Your task to perform on an android device: toggle show notifications on the lock screen Image 0: 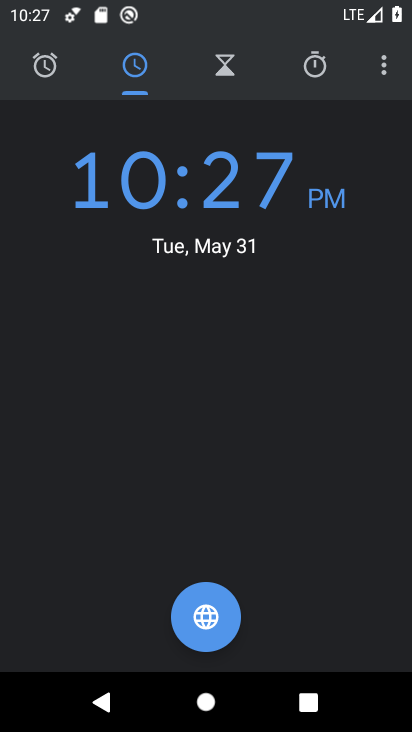
Step 0: press home button
Your task to perform on an android device: toggle show notifications on the lock screen Image 1: 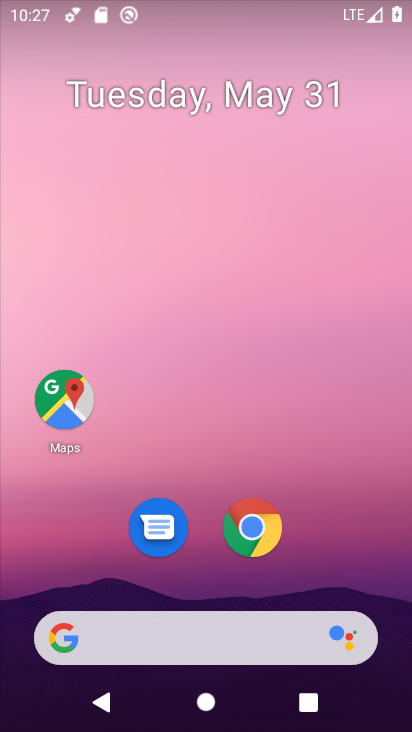
Step 1: drag from (365, 613) to (330, 0)
Your task to perform on an android device: toggle show notifications on the lock screen Image 2: 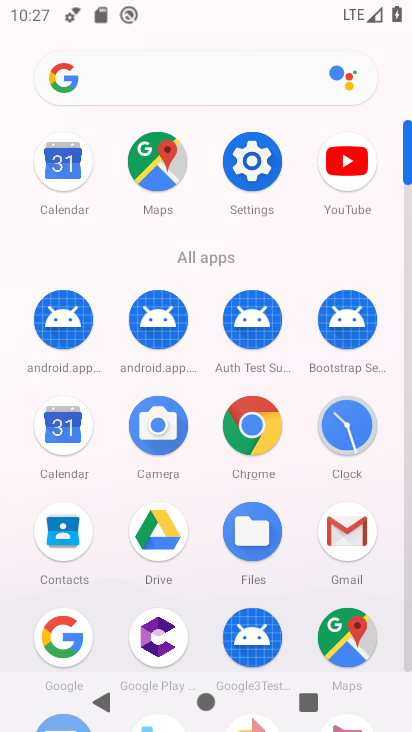
Step 2: click (251, 163)
Your task to perform on an android device: toggle show notifications on the lock screen Image 3: 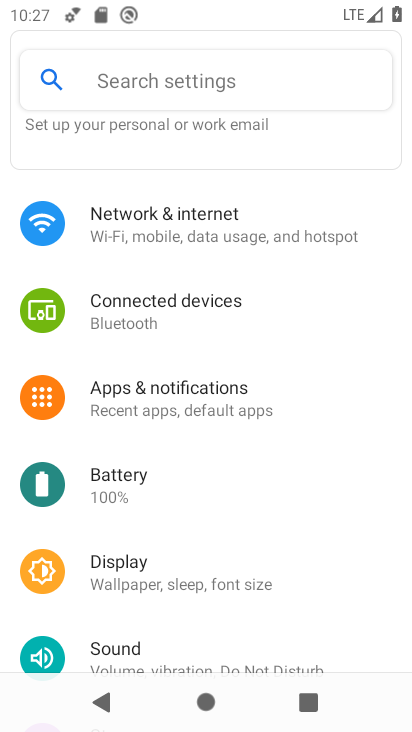
Step 3: click (183, 408)
Your task to perform on an android device: toggle show notifications on the lock screen Image 4: 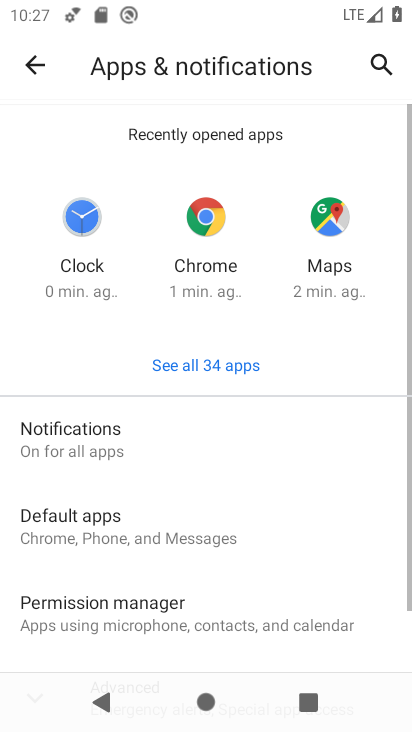
Step 4: click (62, 445)
Your task to perform on an android device: toggle show notifications on the lock screen Image 5: 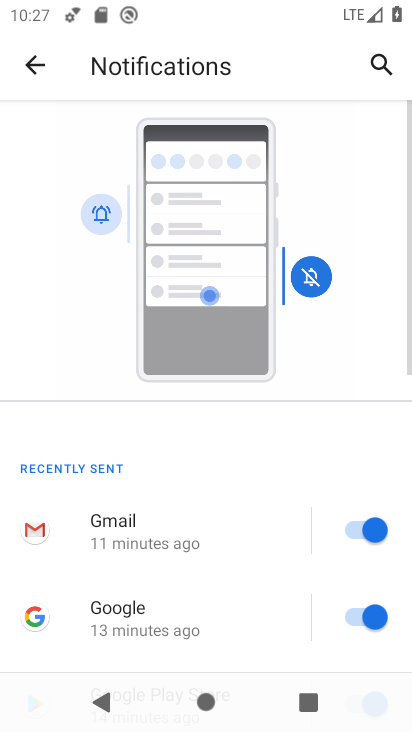
Step 5: drag from (189, 614) to (156, 114)
Your task to perform on an android device: toggle show notifications on the lock screen Image 6: 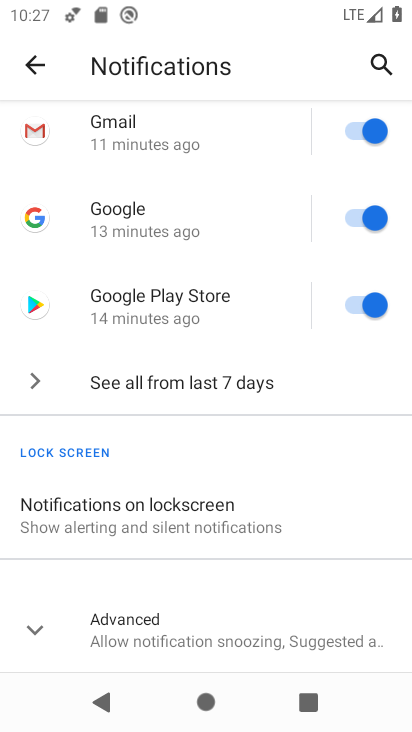
Step 6: click (91, 512)
Your task to perform on an android device: toggle show notifications on the lock screen Image 7: 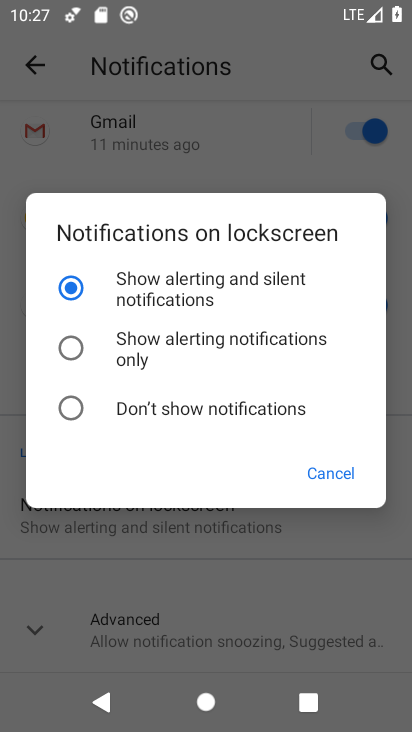
Step 7: click (80, 416)
Your task to perform on an android device: toggle show notifications on the lock screen Image 8: 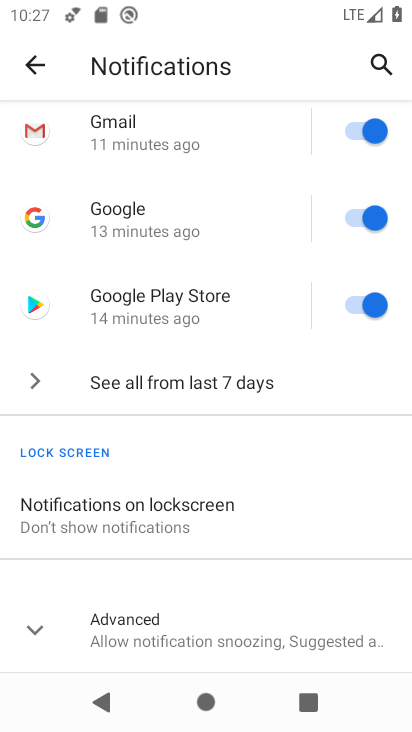
Step 8: task complete